Your task to perform on an android device: Is it going to rain this weekend? Image 0: 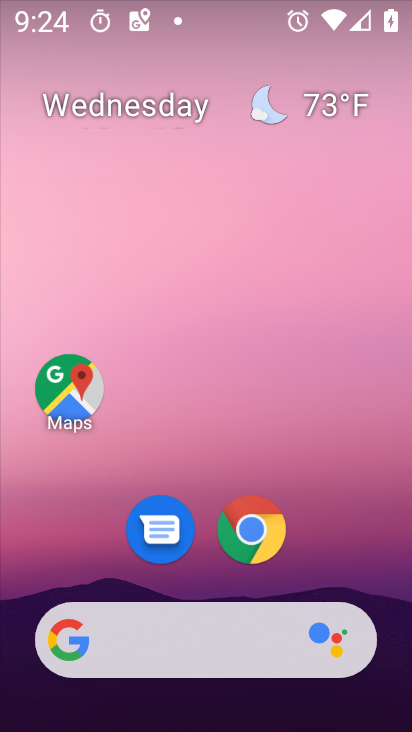
Step 0: drag from (384, 553) to (361, 231)
Your task to perform on an android device: Is it going to rain this weekend? Image 1: 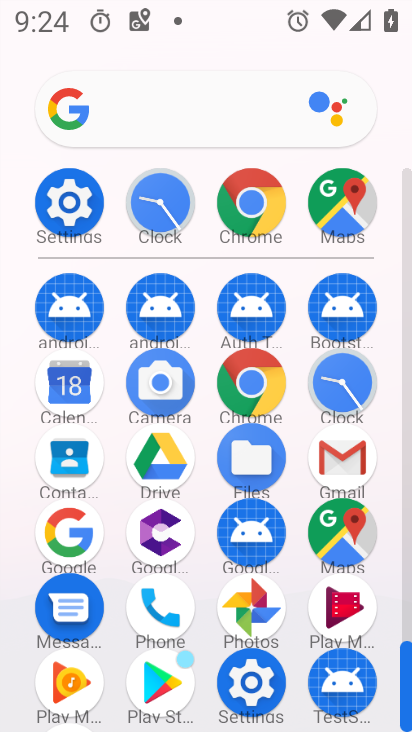
Step 1: click (245, 122)
Your task to perform on an android device: Is it going to rain this weekend? Image 2: 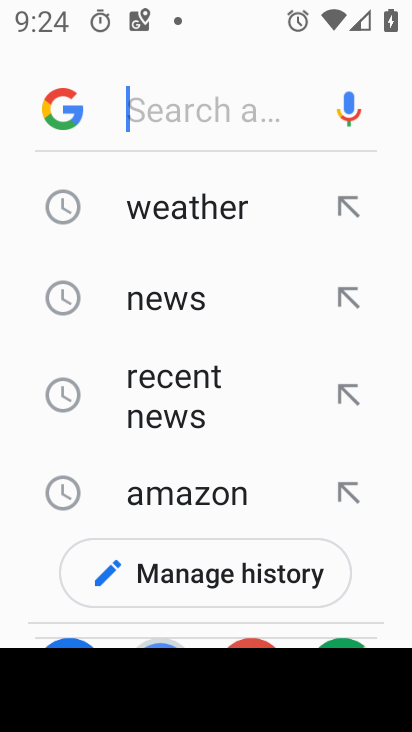
Step 2: click (283, 218)
Your task to perform on an android device: Is it going to rain this weekend? Image 3: 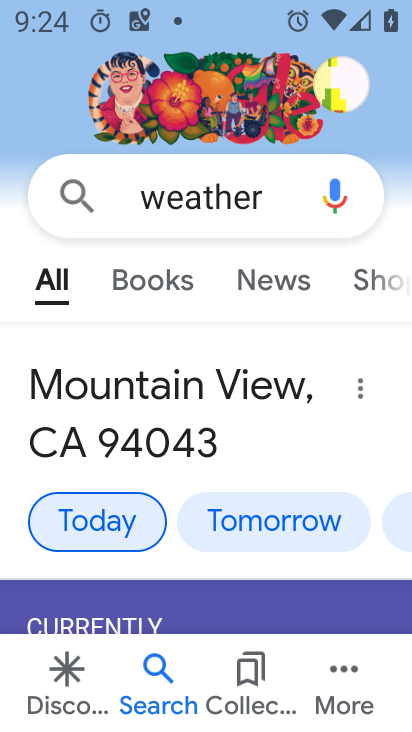
Step 3: drag from (328, 464) to (308, 301)
Your task to perform on an android device: Is it going to rain this weekend? Image 4: 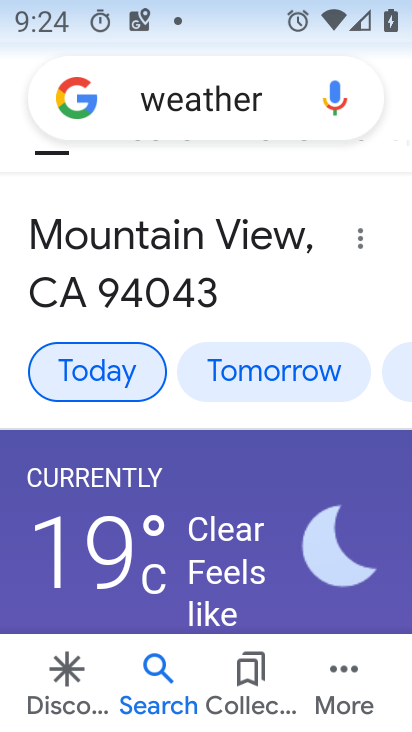
Step 4: click (395, 379)
Your task to perform on an android device: Is it going to rain this weekend? Image 5: 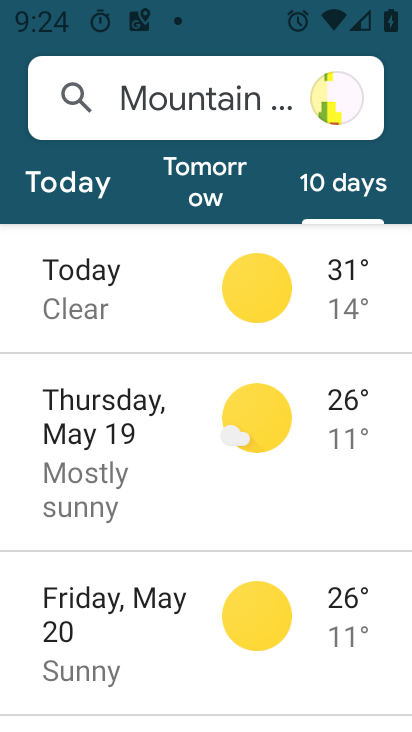
Step 5: task complete